Your task to perform on an android device: Open location settings Image 0: 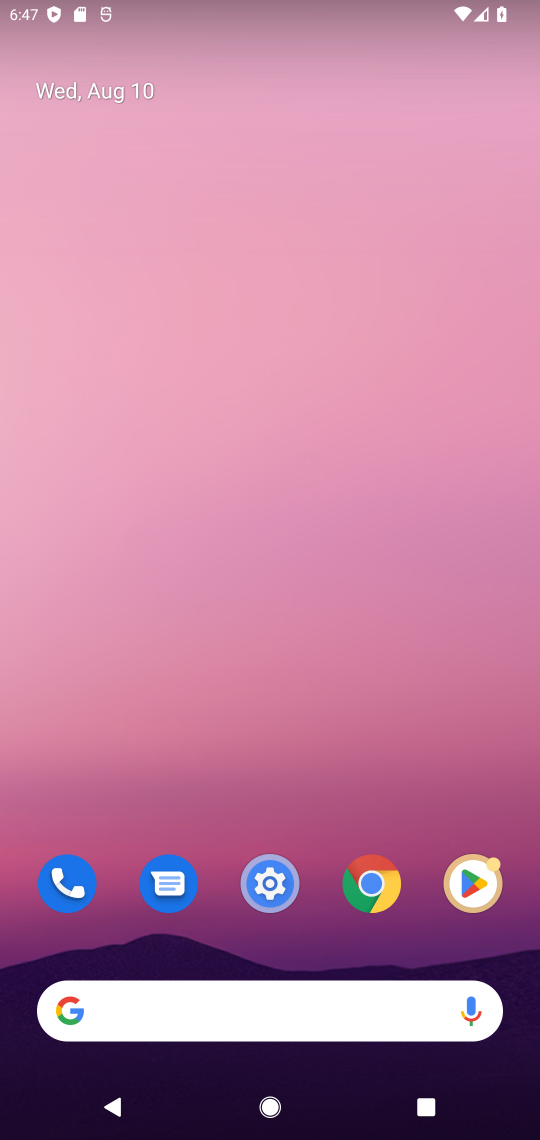
Step 0: drag from (298, 750) to (344, 123)
Your task to perform on an android device: Open location settings Image 1: 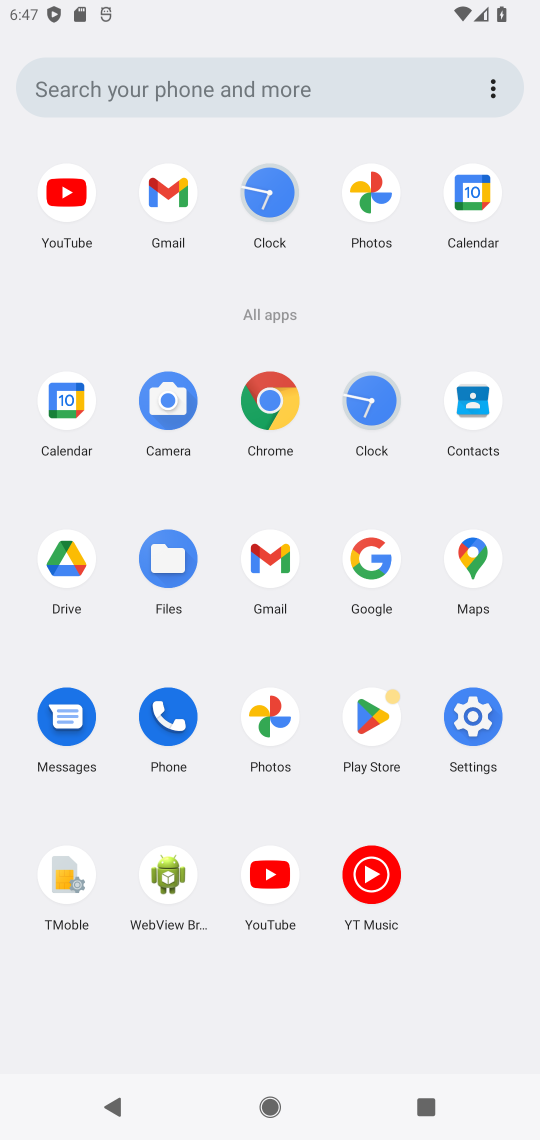
Step 1: click (496, 559)
Your task to perform on an android device: Open location settings Image 2: 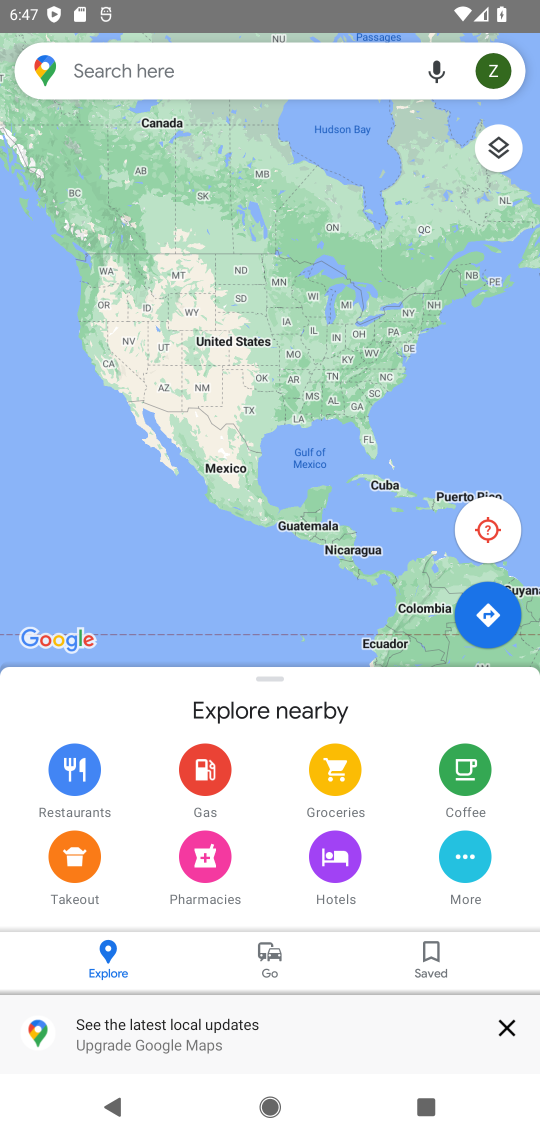
Step 2: click (503, 7)
Your task to perform on an android device: Open location settings Image 3: 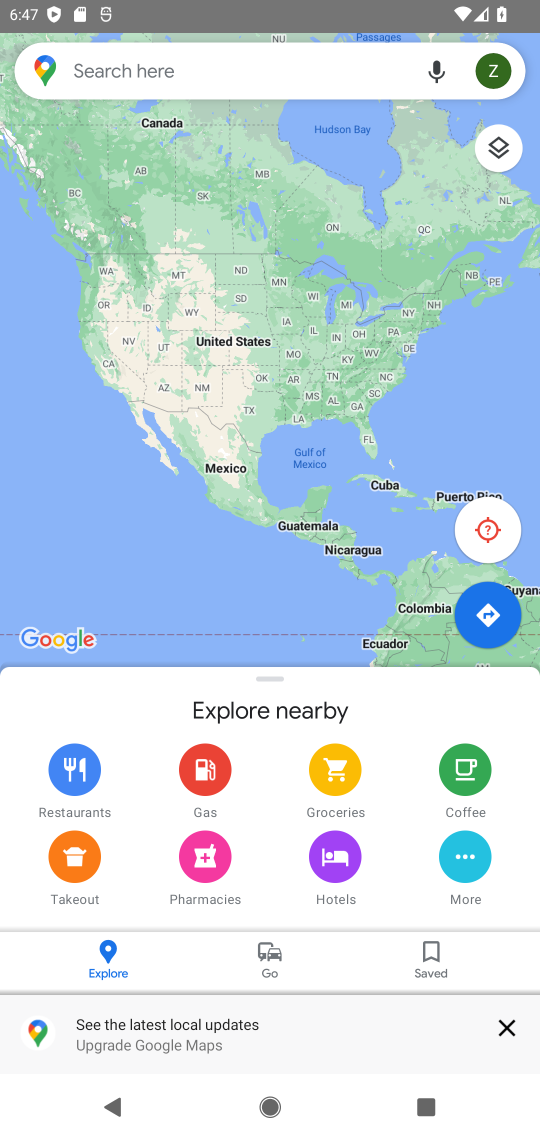
Step 3: click (501, 70)
Your task to perform on an android device: Open location settings Image 4: 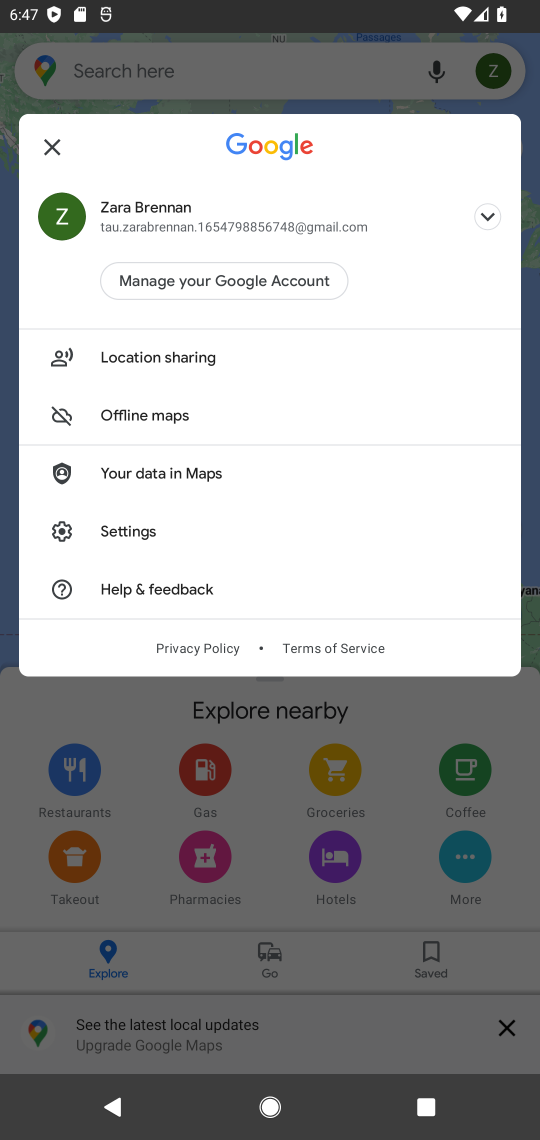
Step 4: click (151, 530)
Your task to perform on an android device: Open location settings Image 5: 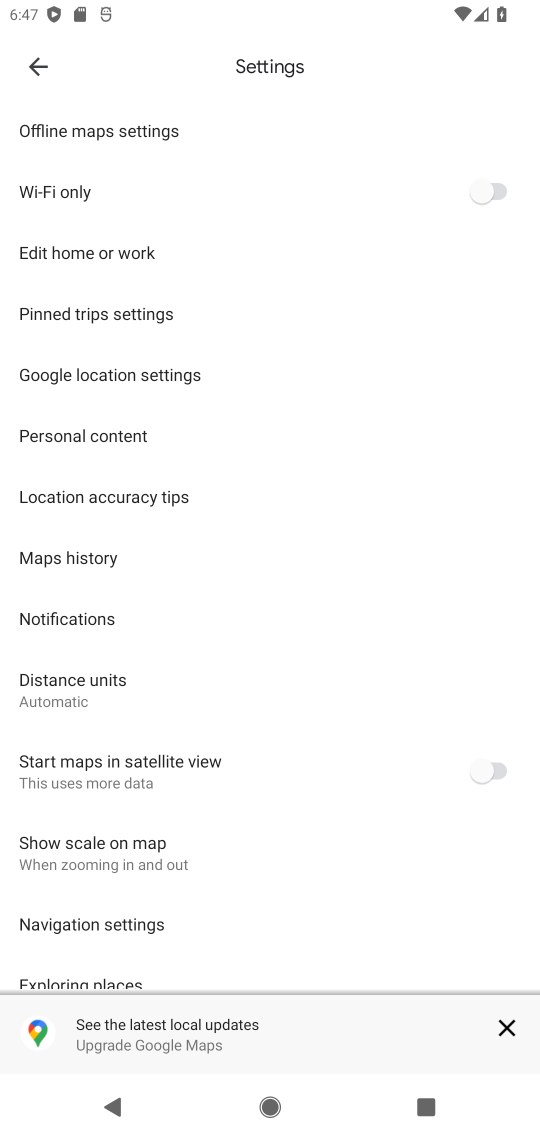
Step 5: task complete